Your task to perform on an android device: change the clock style Image 0: 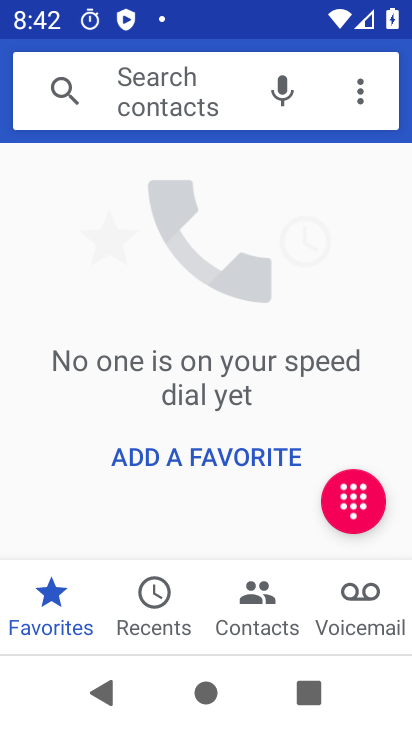
Step 0: press home button
Your task to perform on an android device: change the clock style Image 1: 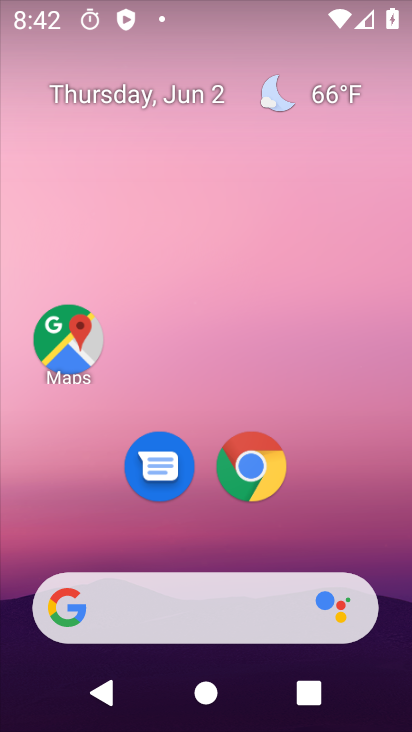
Step 1: drag from (75, 551) to (362, 200)
Your task to perform on an android device: change the clock style Image 2: 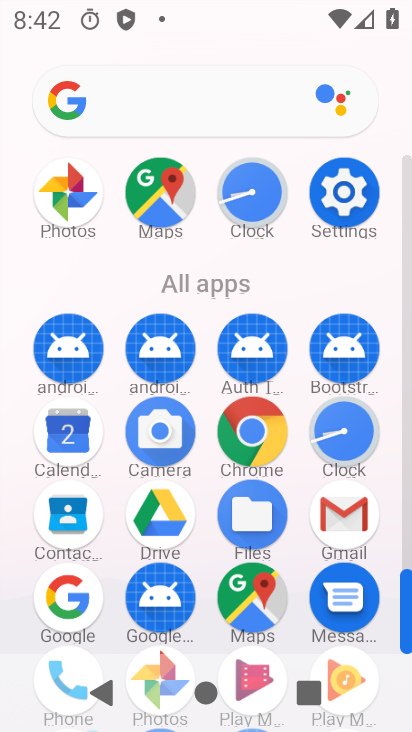
Step 2: drag from (44, 455) to (229, 194)
Your task to perform on an android device: change the clock style Image 3: 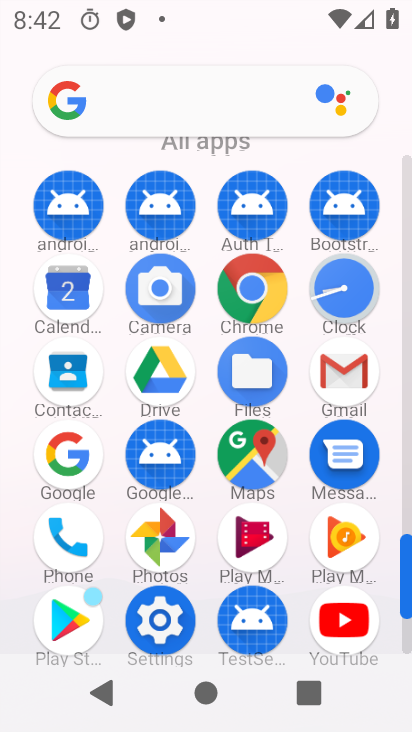
Step 3: click (351, 293)
Your task to perform on an android device: change the clock style Image 4: 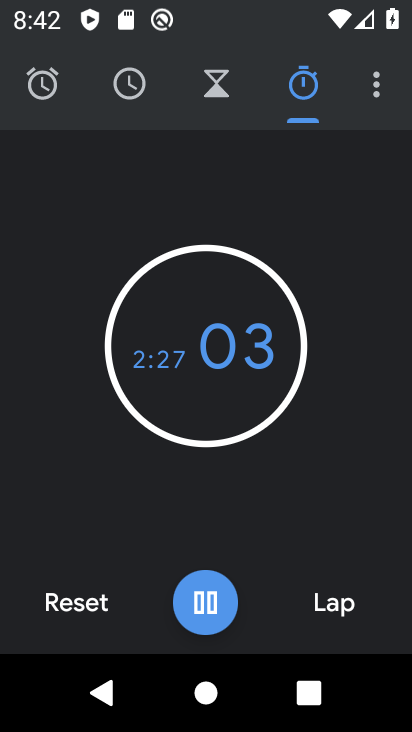
Step 4: click (377, 91)
Your task to perform on an android device: change the clock style Image 5: 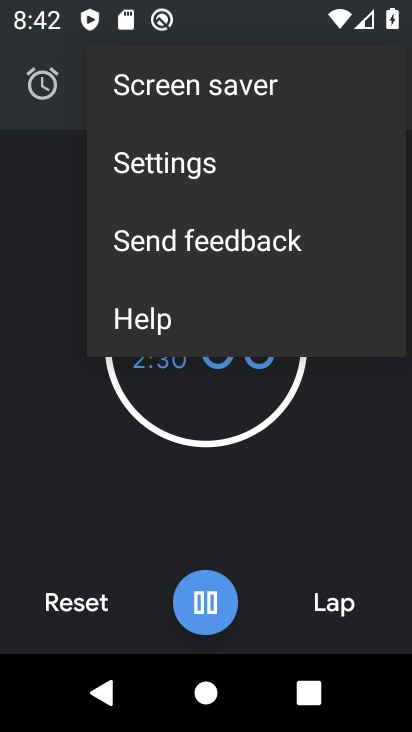
Step 5: click (181, 159)
Your task to perform on an android device: change the clock style Image 6: 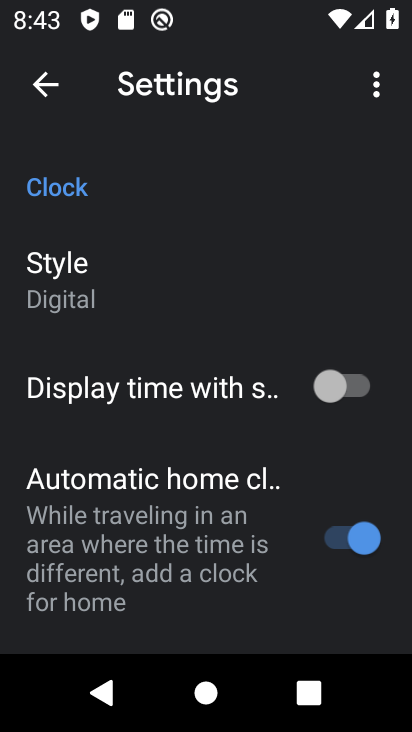
Step 6: click (136, 268)
Your task to perform on an android device: change the clock style Image 7: 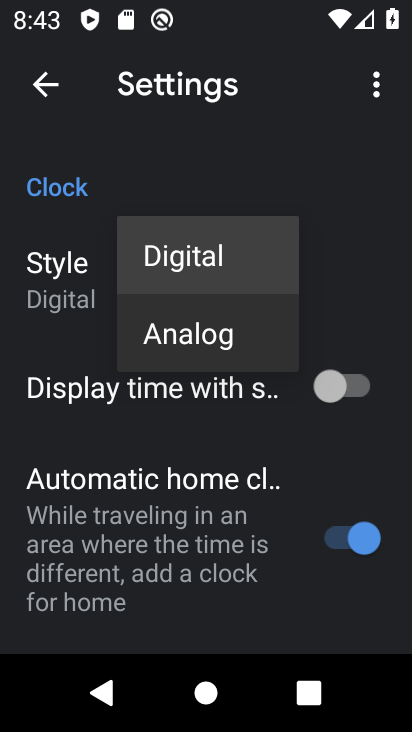
Step 7: click (144, 331)
Your task to perform on an android device: change the clock style Image 8: 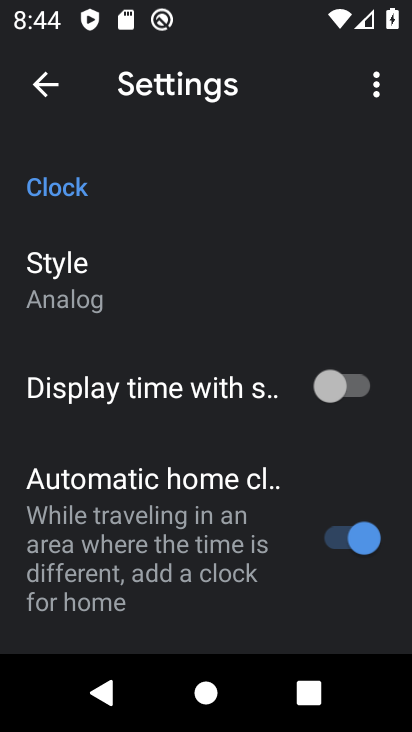
Step 8: task complete